Your task to perform on an android device: Open calendar and show me the third week of next month Image 0: 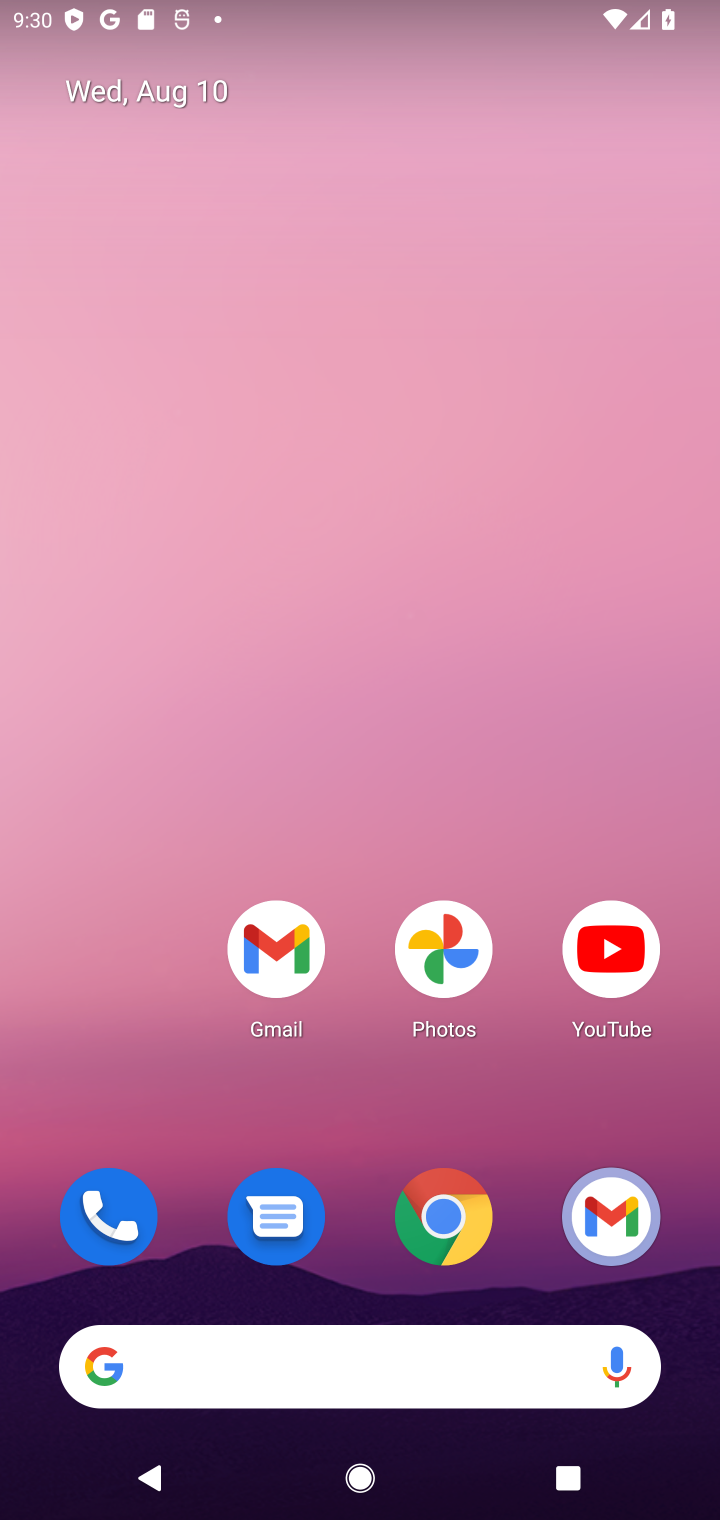
Step 0: drag from (26, 1218) to (444, 118)
Your task to perform on an android device: Open calendar and show me the third week of next month Image 1: 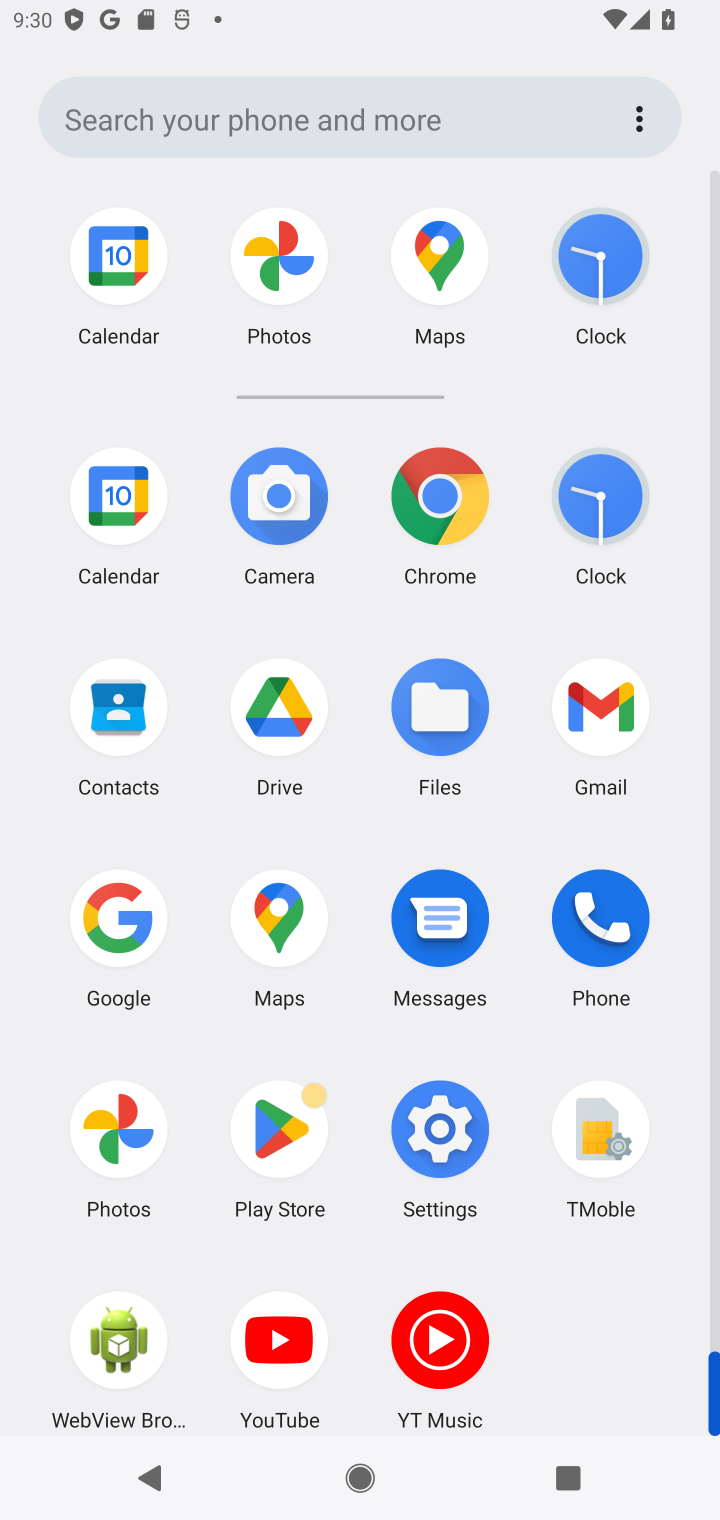
Step 1: click (102, 498)
Your task to perform on an android device: Open calendar and show me the third week of next month Image 2: 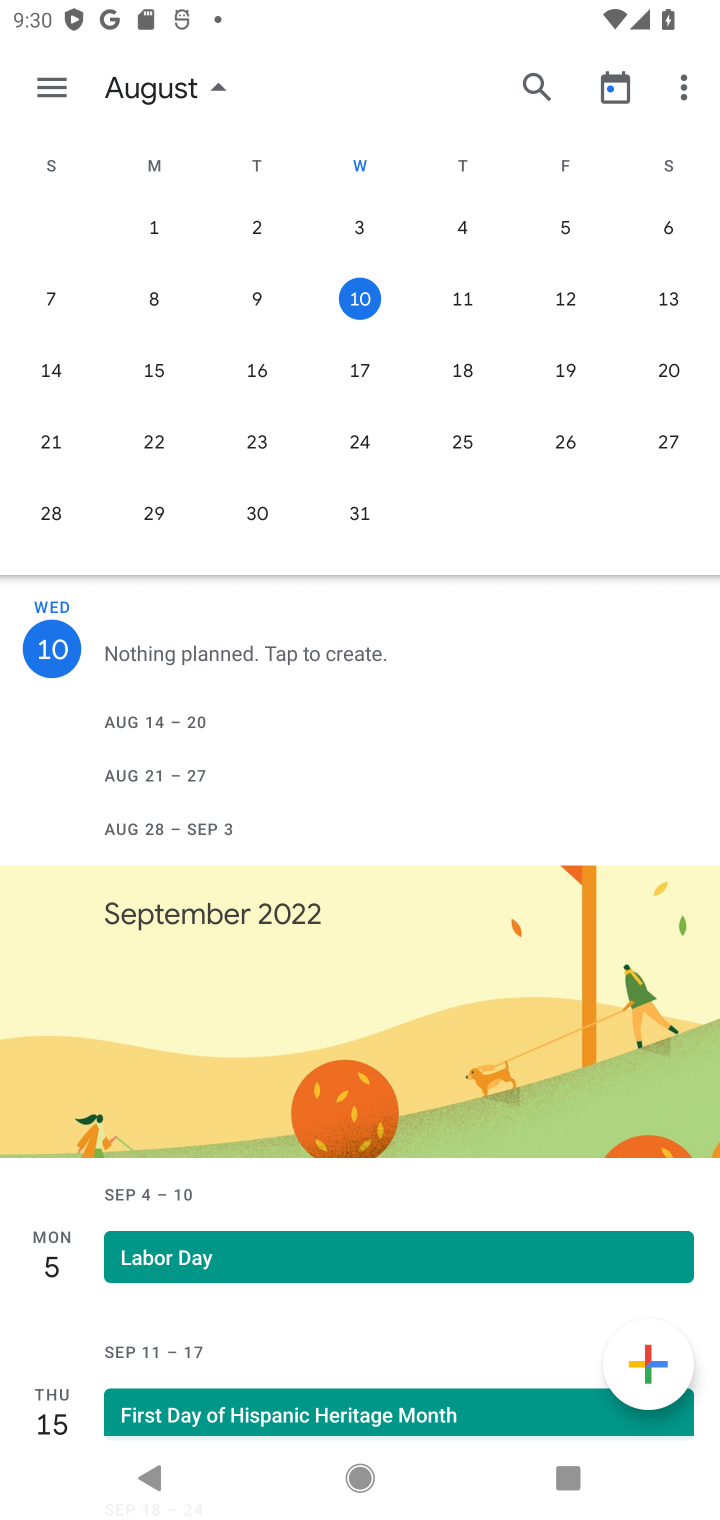
Step 2: task complete